Your task to perform on an android device: open device folders in google photos Image 0: 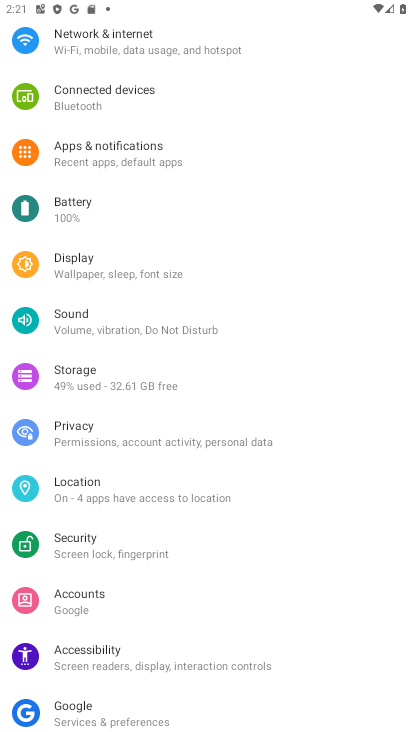
Step 0: press back button
Your task to perform on an android device: open device folders in google photos Image 1: 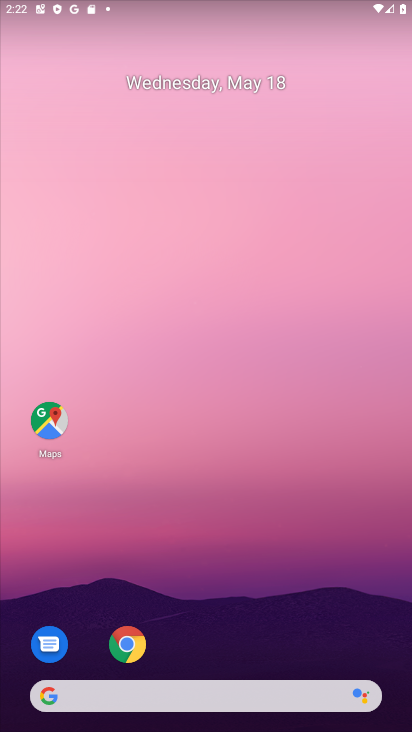
Step 1: drag from (268, 645) to (309, 11)
Your task to perform on an android device: open device folders in google photos Image 2: 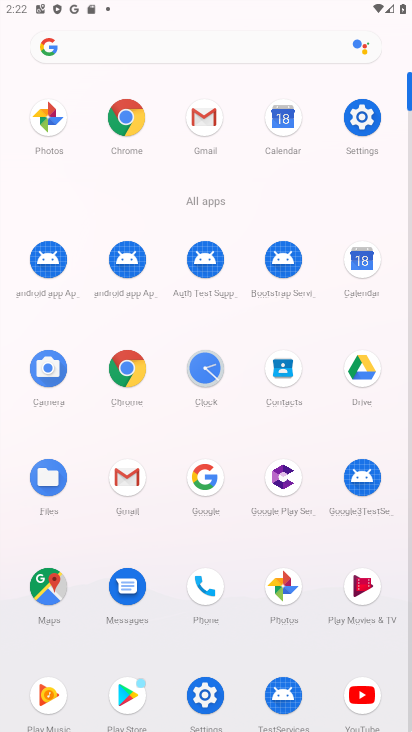
Step 2: click (50, 118)
Your task to perform on an android device: open device folders in google photos Image 3: 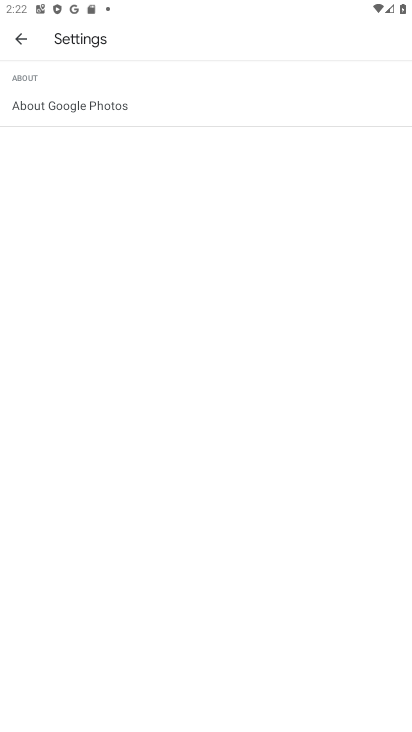
Step 3: press back button
Your task to perform on an android device: open device folders in google photos Image 4: 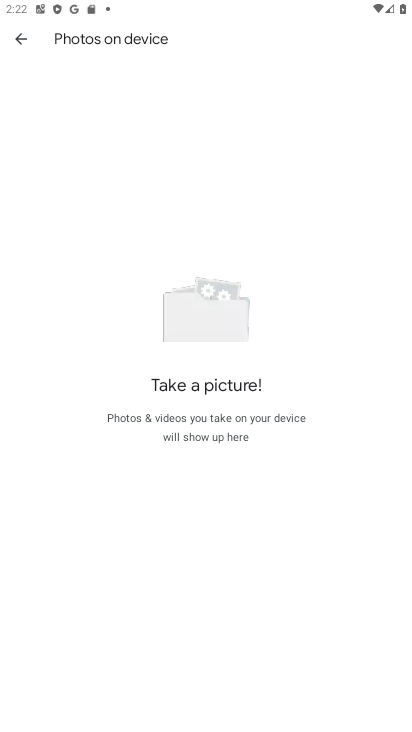
Step 4: press back button
Your task to perform on an android device: open device folders in google photos Image 5: 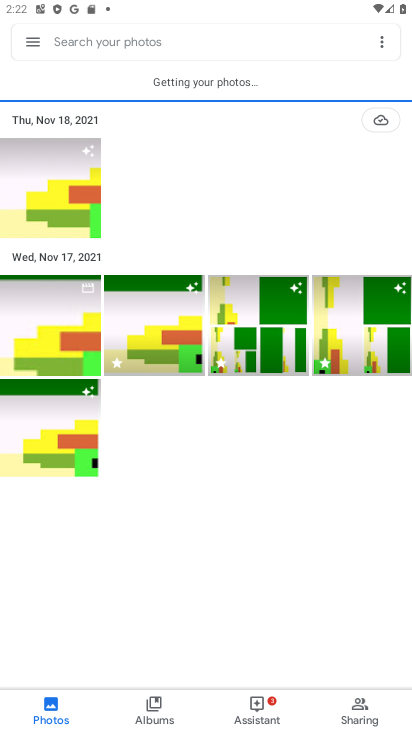
Step 5: click (32, 42)
Your task to perform on an android device: open device folders in google photos Image 6: 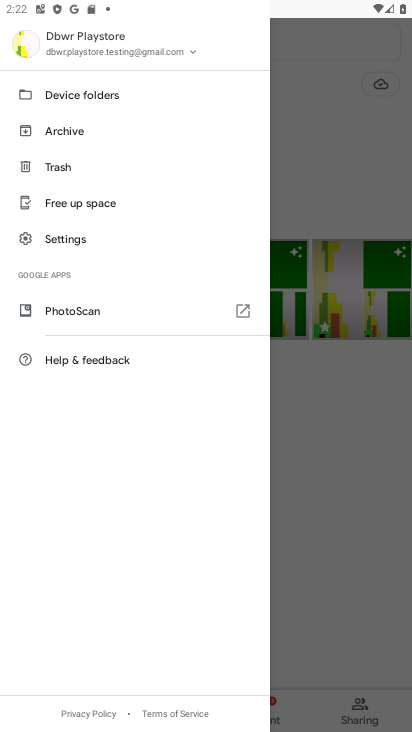
Step 6: click (75, 99)
Your task to perform on an android device: open device folders in google photos Image 7: 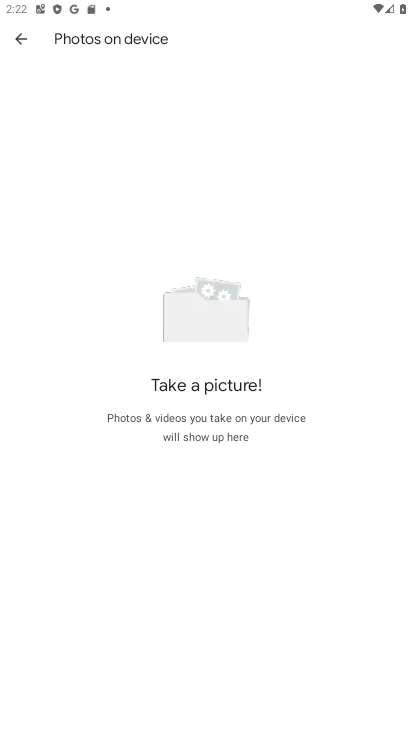
Step 7: task complete